Your task to perform on an android device: Go to display settings Image 0: 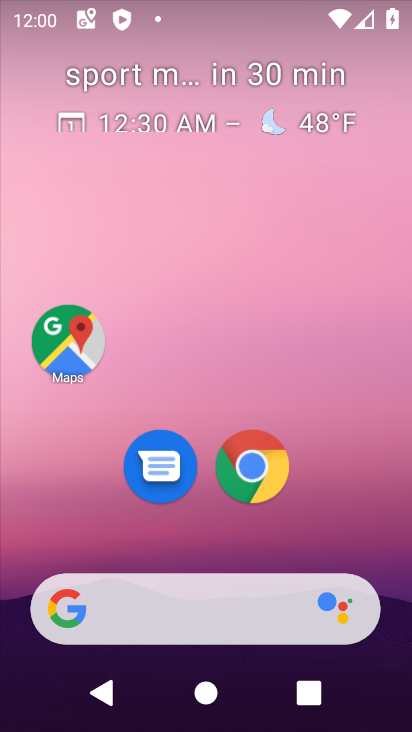
Step 0: drag from (393, 564) to (329, 46)
Your task to perform on an android device: Go to display settings Image 1: 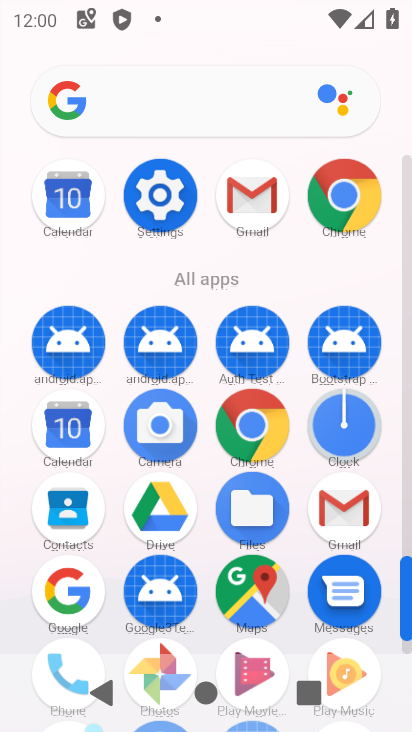
Step 1: click (406, 546)
Your task to perform on an android device: Go to display settings Image 2: 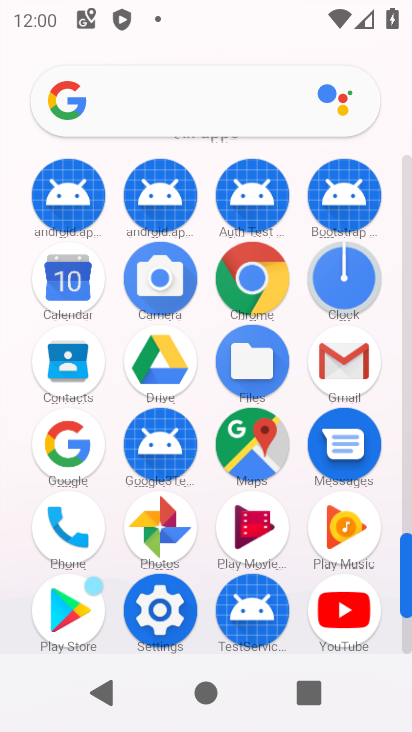
Step 2: click (158, 609)
Your task to perform on an android device: Go to display settings Image 3: 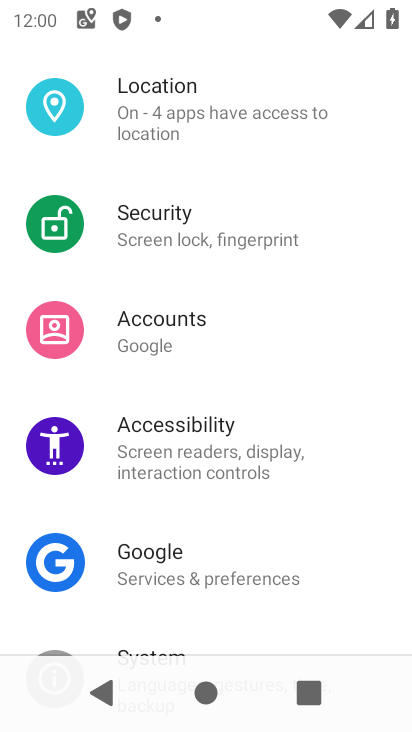
Step 3: drag from (347, 112) to (290, 545)
Your task to perform on an android device: Go to display settings Image 4: 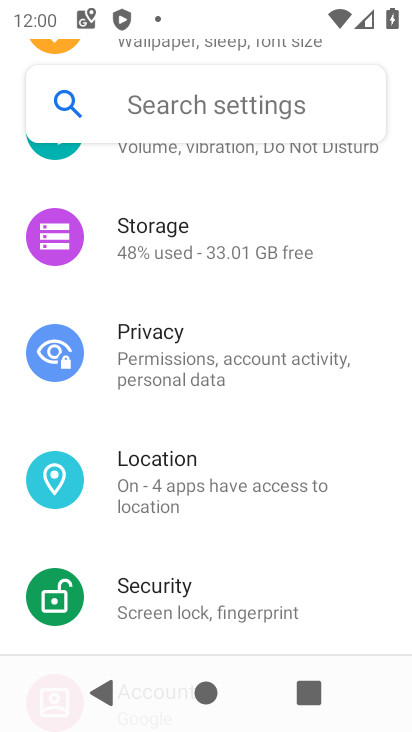
Step 4: drag from (345, 219) to (323, 553)
Your task to perform on an android device: Go to display settings Image 5: 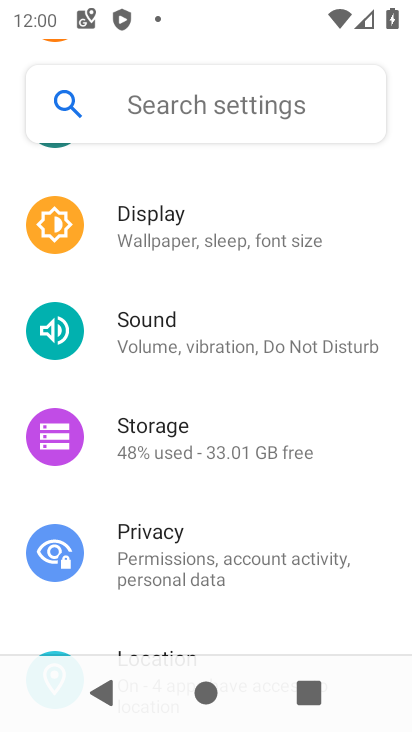
Step 5: click (152, 223)
Your task to perform on an android device: Go to display settings Image 6: 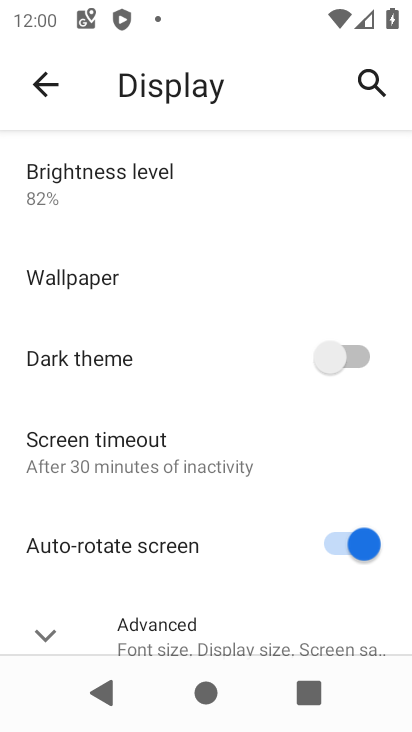
Step 6: click (40, 629)
Your task to perform on an android device: Go to display settings Image 7: 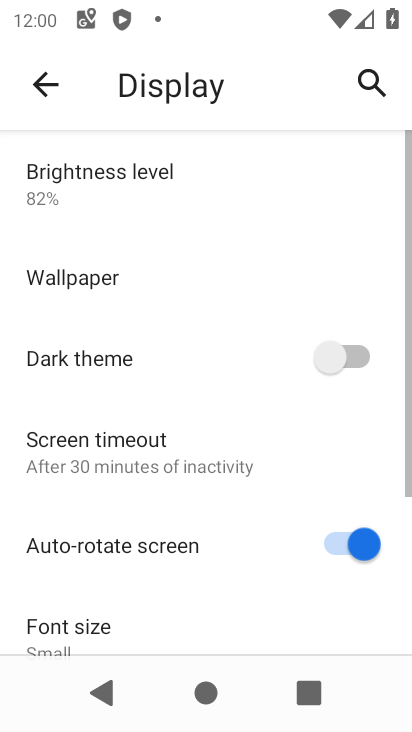
Step 7: task complete